Your task to perform on an android device: turn off translation in the chrome app Image 0: 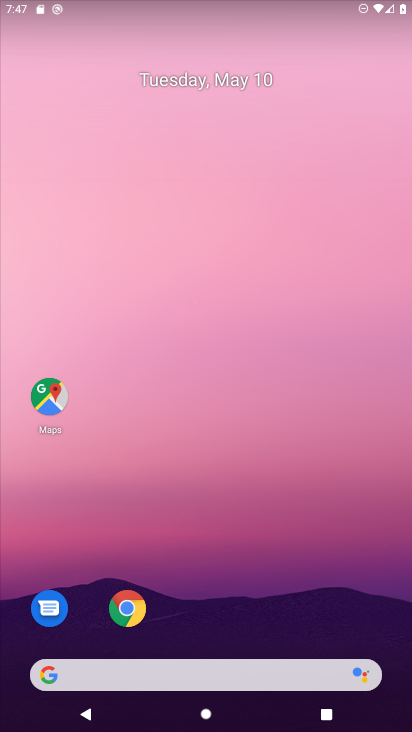
Step 0: drag from (238, 579) to (272, 343)
Your task to perform on an android device: turn off translation in the chrome app Image 1: 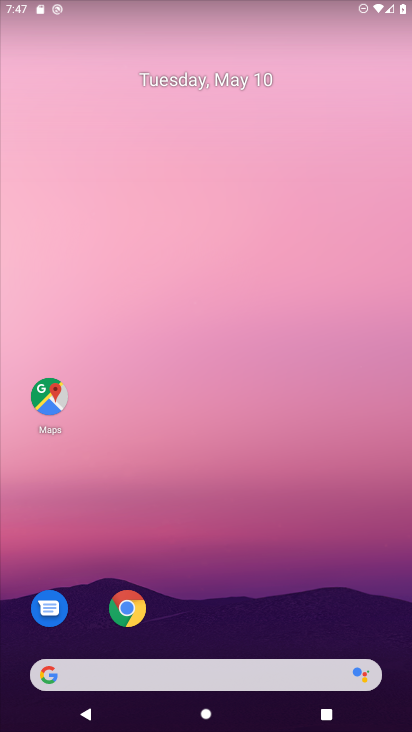
Step 1: drag from (232, 528) to (223, 226)
Your task to perform on an android device: turn off translation in the chrome app Image 2: 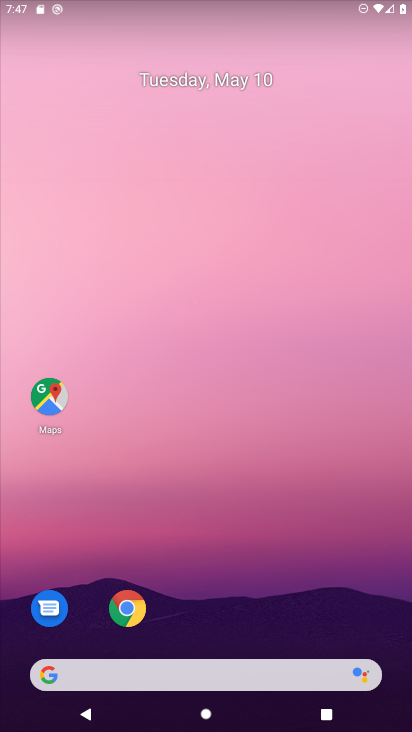
Step 2: drag from (200, 641) to (236, 190)
Your task to perform on an android device: turn off translation in the chrome app Image 3: 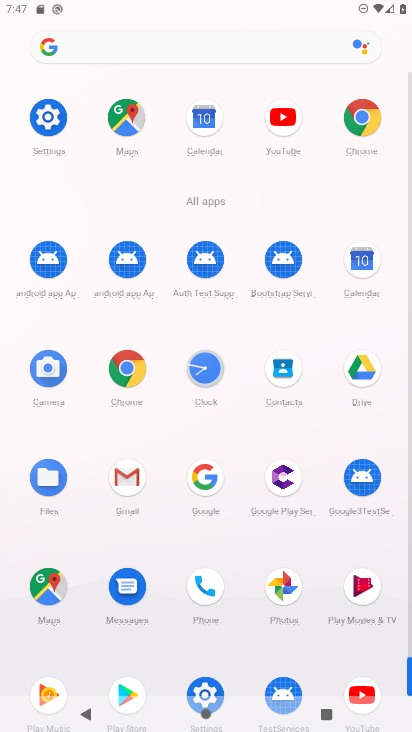
Step 3: click (133, 364)
Your task to perform on an android device: turn off translation in the chrome app Image 4: 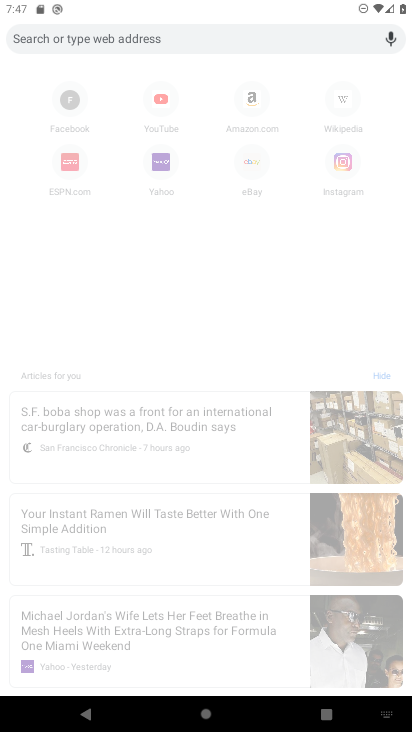
Step 4: drag from (257, 253) to (248, 459)
Your task to perform on an android device: turn off translation in the chrome app Image 5: 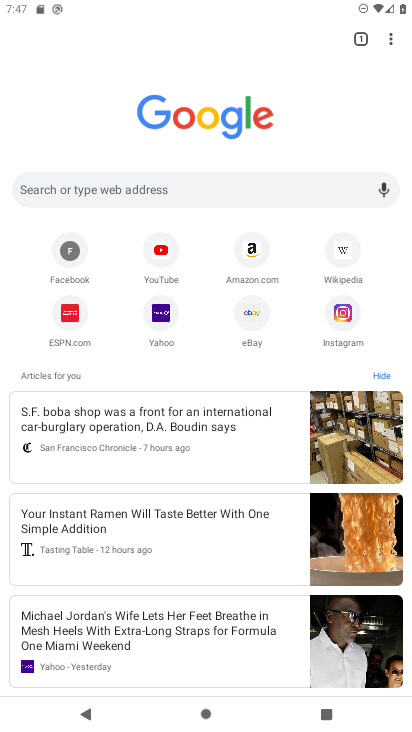
Step 5: drag from (231, 304) to (232, 488)
Your task to perform on an android device: turn off translation in the chrome app Image 6: 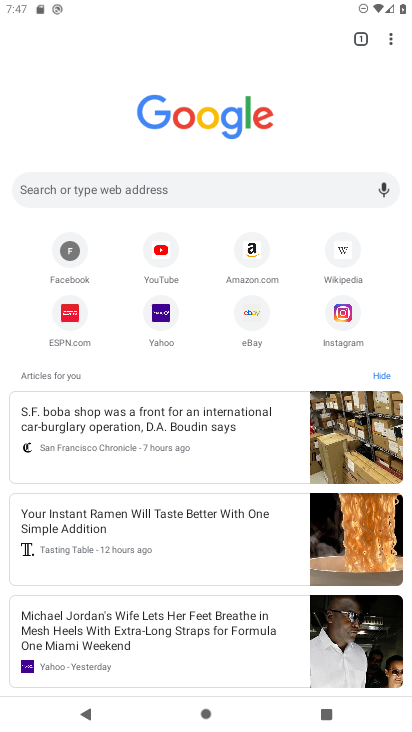
Step 6: click (386, 36)
Your task to perform on an android device: turn off translation in the chrome app Image 7: 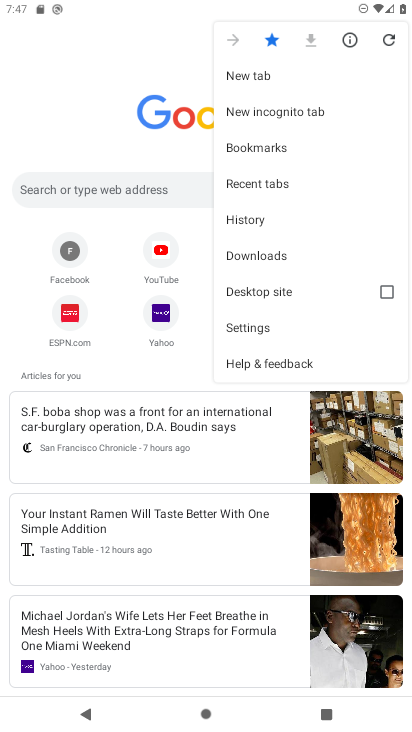
Step 7: click (253, 332)
Your task to perform on an android device: turn off translation in the chrome app Image 8: 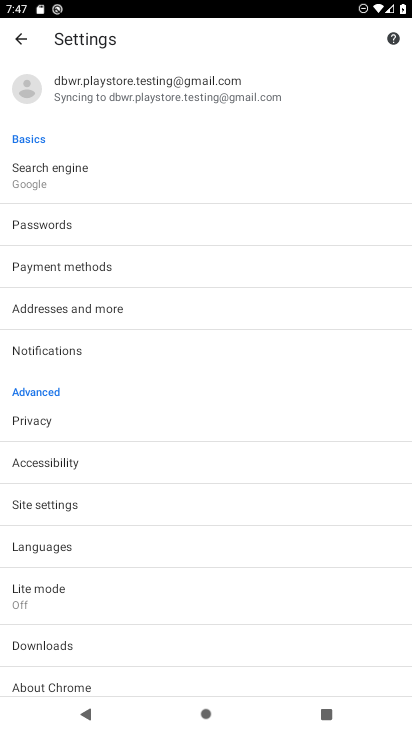
Step 8: click (83, 549)
Your task to perform on an android device: turn off translation in the chrome app Image 9: 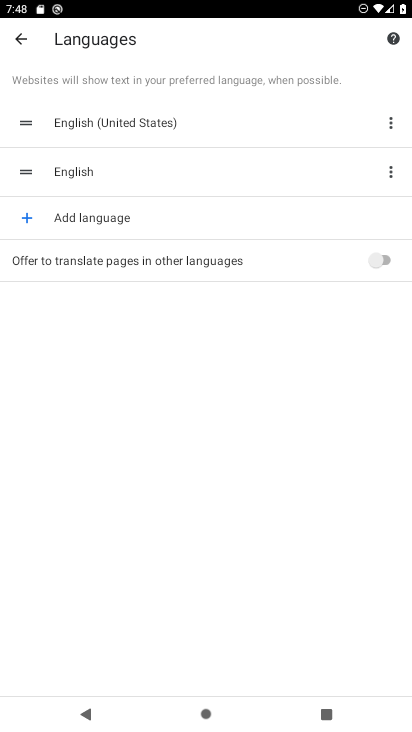
Step 9: task complete